Your task to perform on an android device: Show me recent news Image 0: 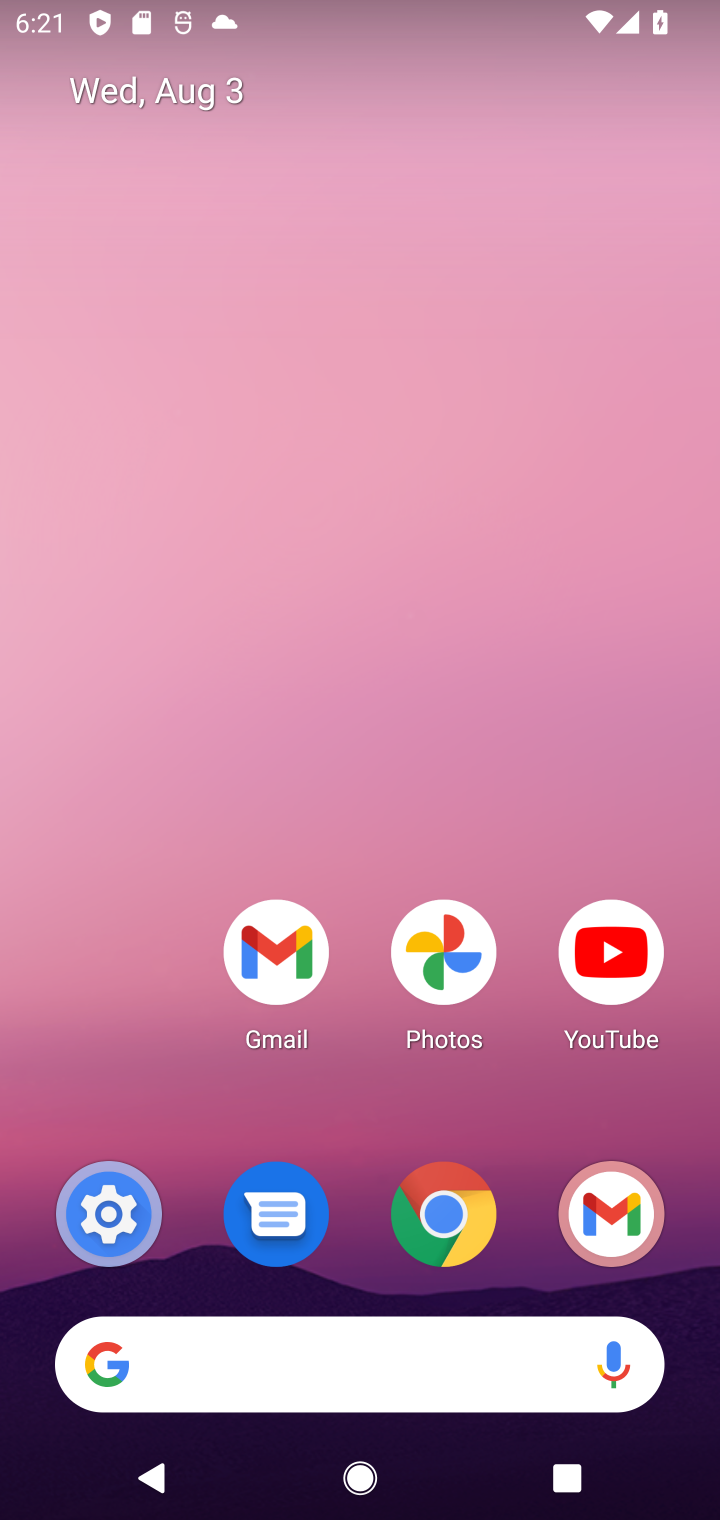
Step 0: drag from (52, 1115) to (78, 112)
Your task to perform on an android device: Show me recent news Image 1: 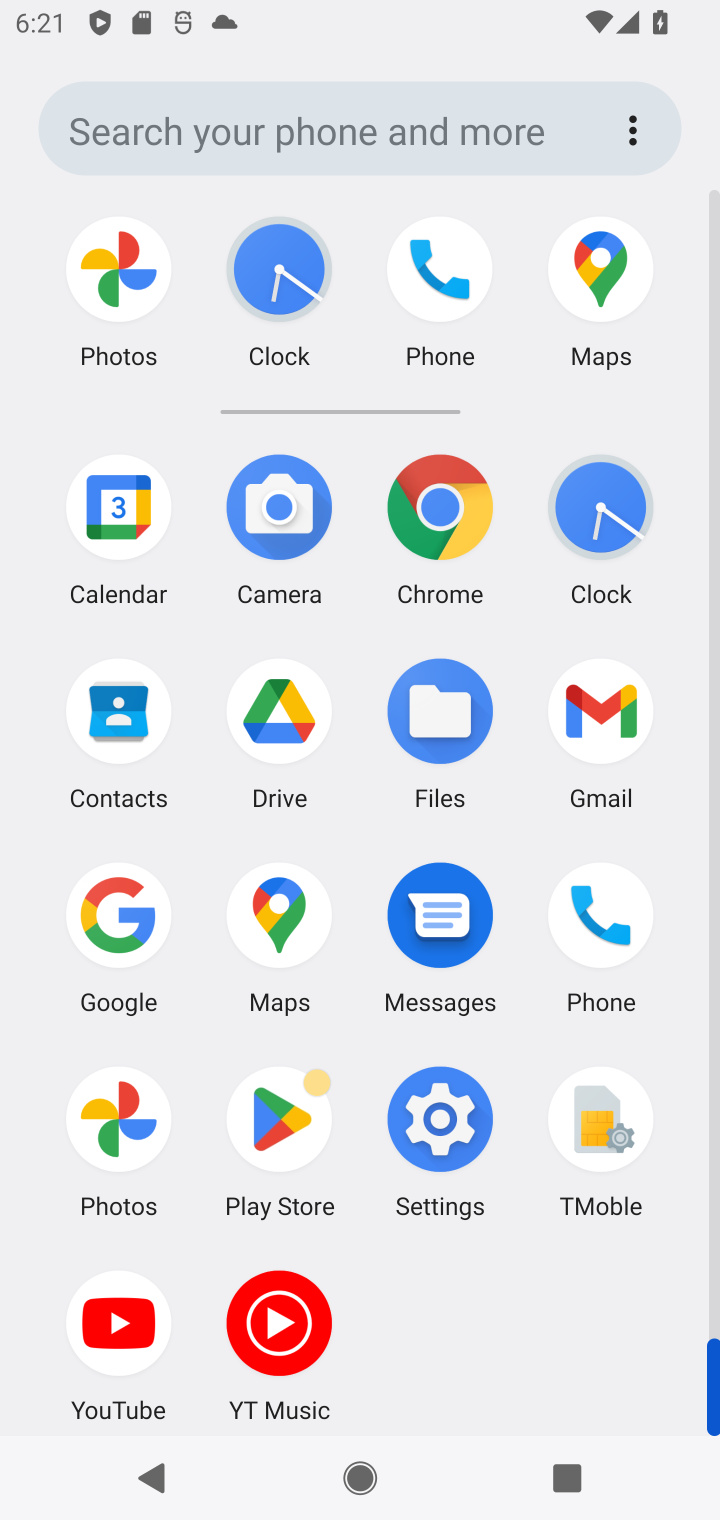
Step 1: click (427, 508)
Your task to perform on an android device: Show me recent news Image 2: 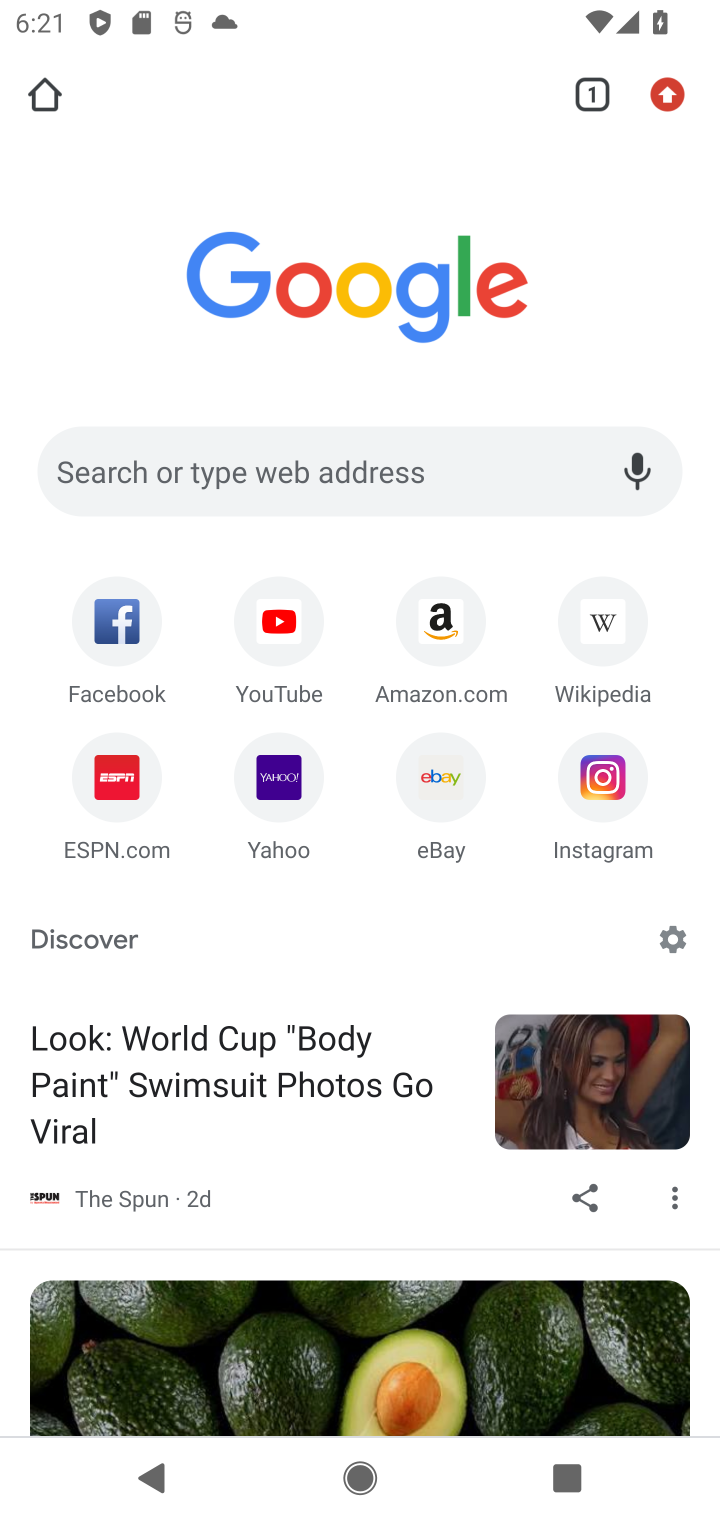
Step 2: drag from (159, 904) to (307, 365)
Your task to perform on an android device: Show me recent news Image 3: 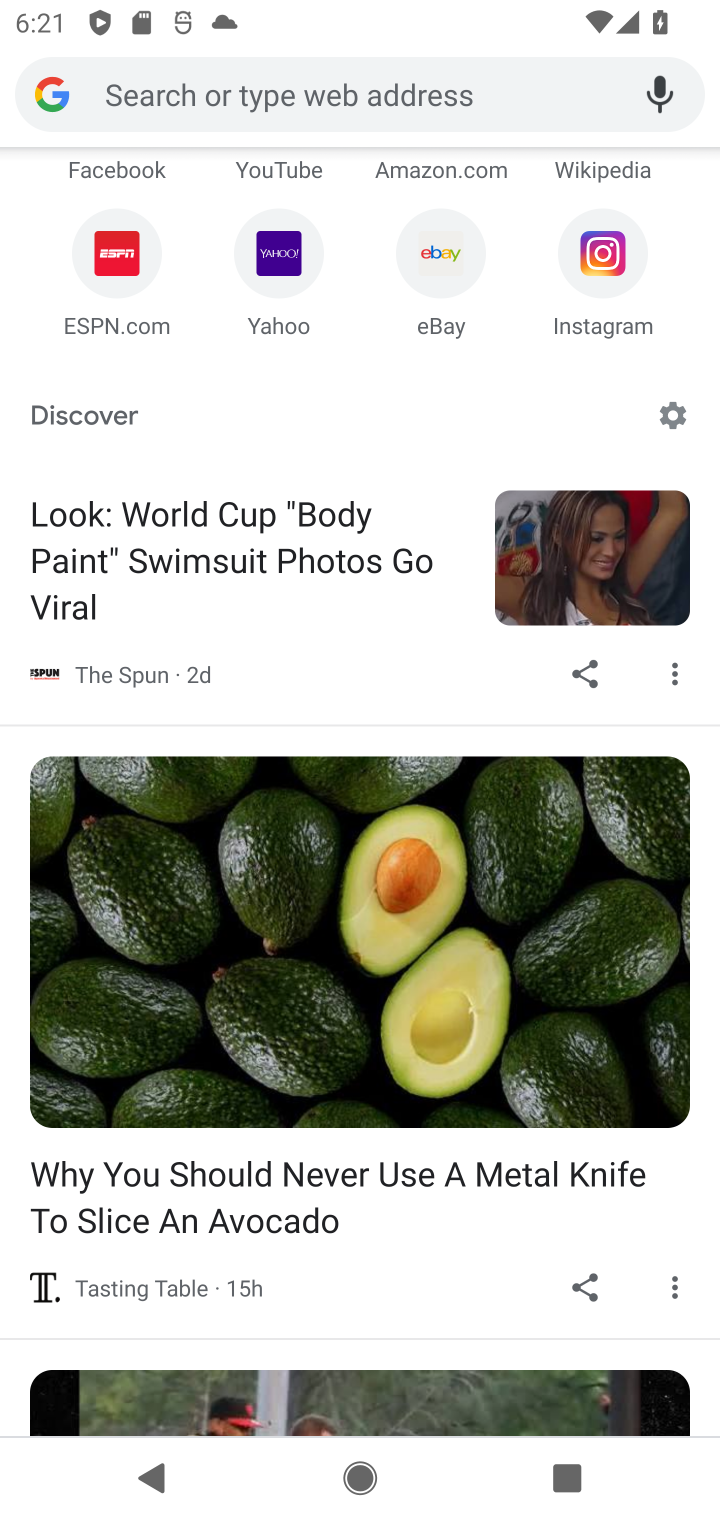
Step 3: drag from (256, 971) to (335, 334)
Your task to perform on an android device: Show me recent news Image 4: 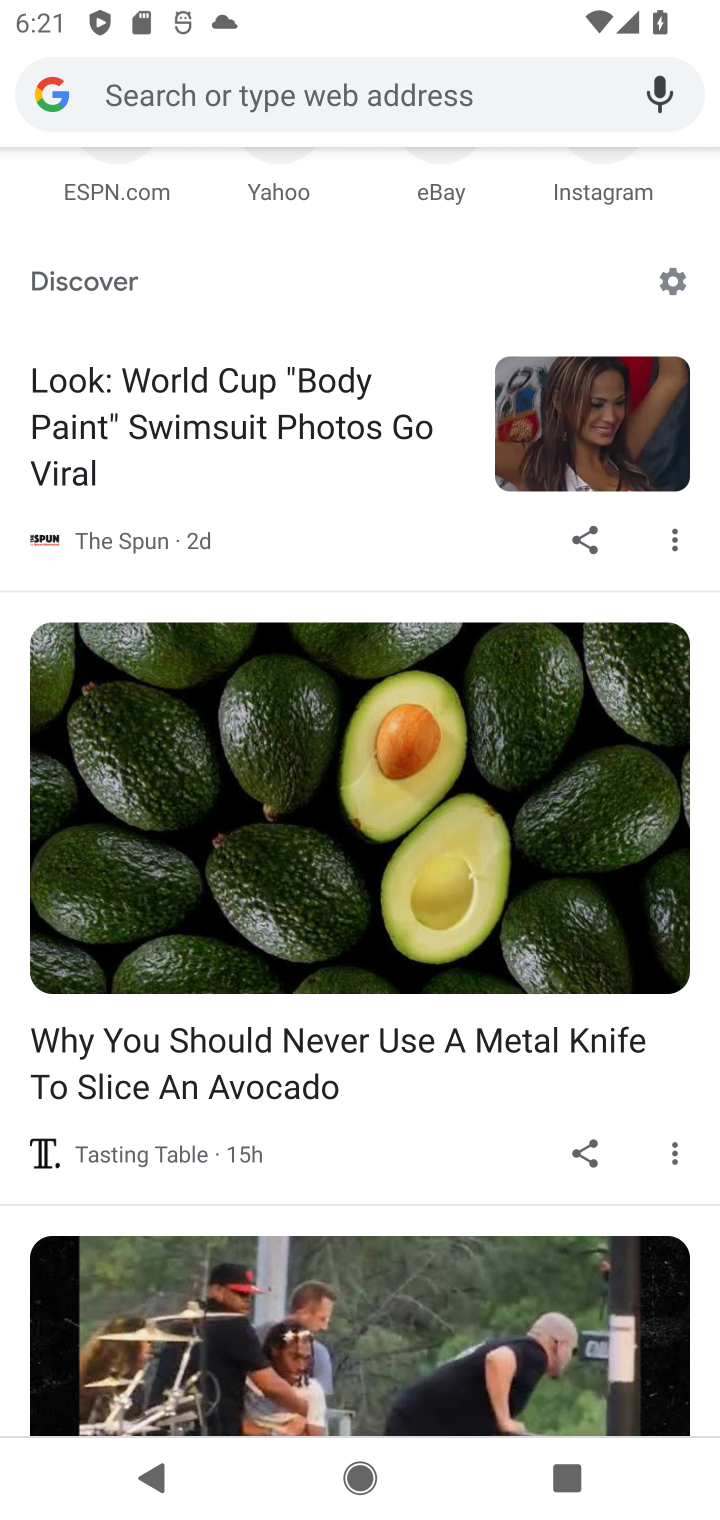
Step 4: drag from (315, 977) to (306, 316)
Your task to perform on an android device: Show me recent news Image 5: 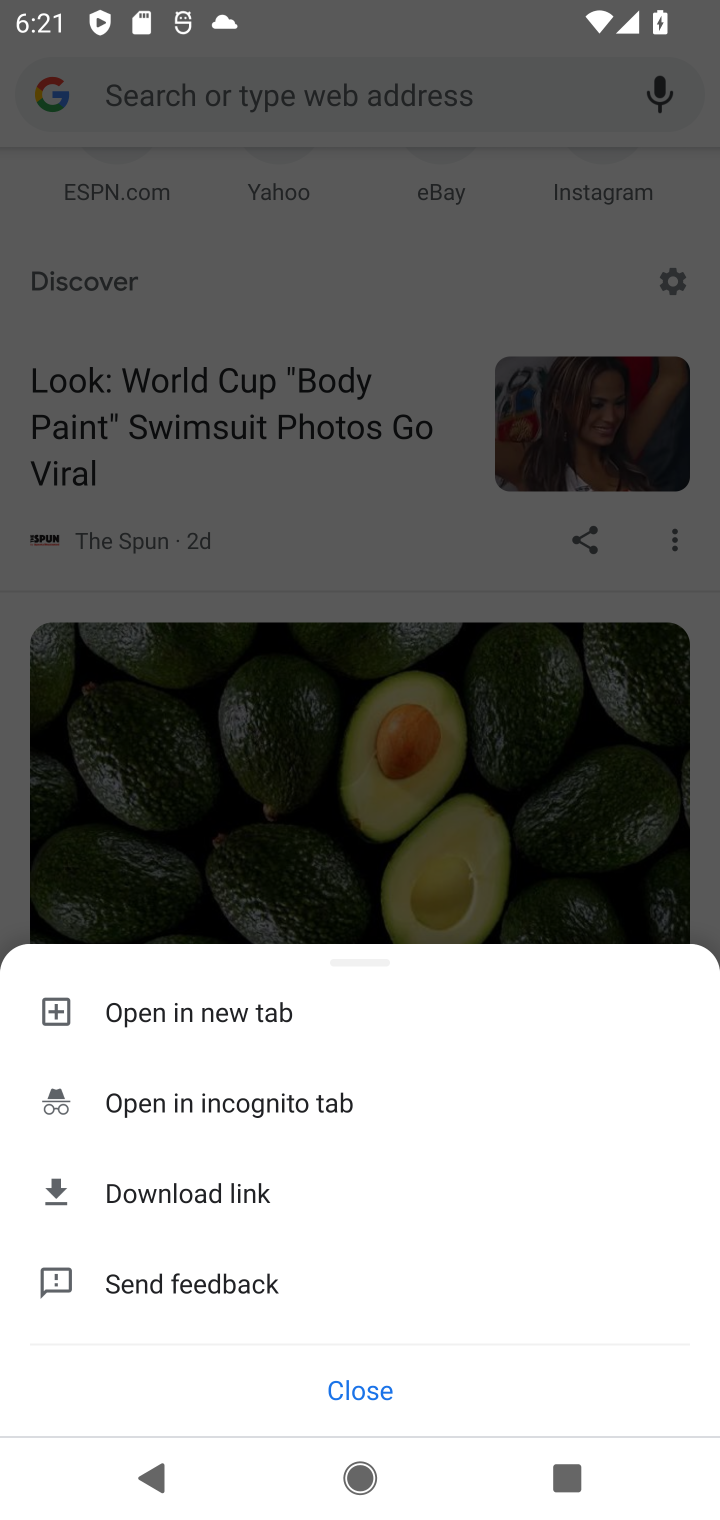
Step 5: click (324, 502)
Your task to perform on an android device: Show me recent news Image 6: 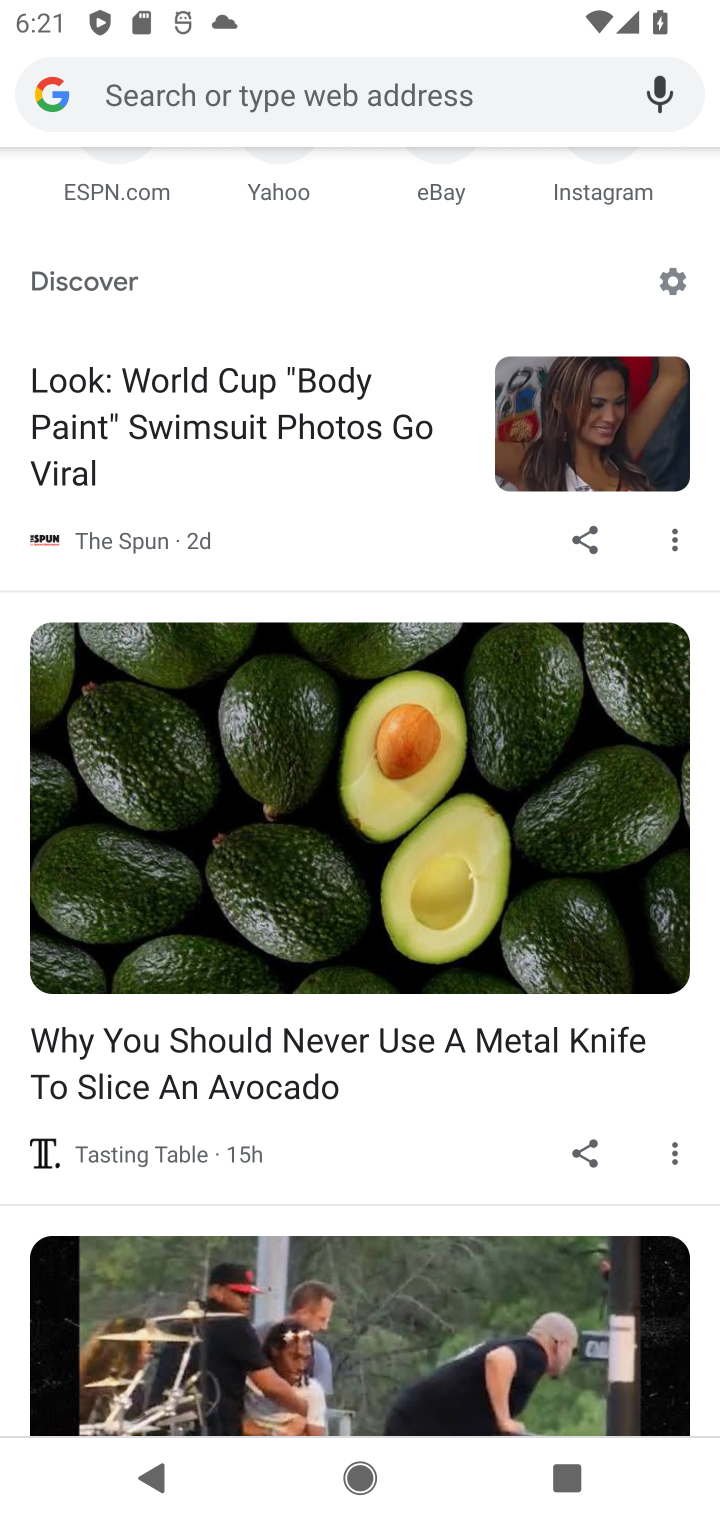
Step 6: task complete